Your task to perform on an android device: Go to eBay Image 0: 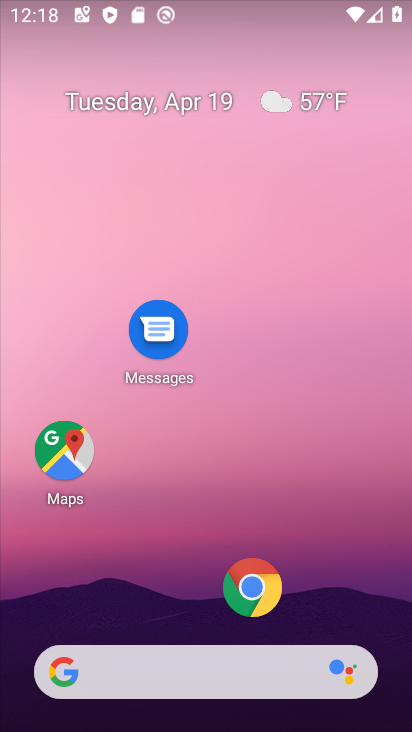
Step 0: drag from (188, 527) to (177, 81)
Your task to perform on an android device: Go to eBay Image 1: 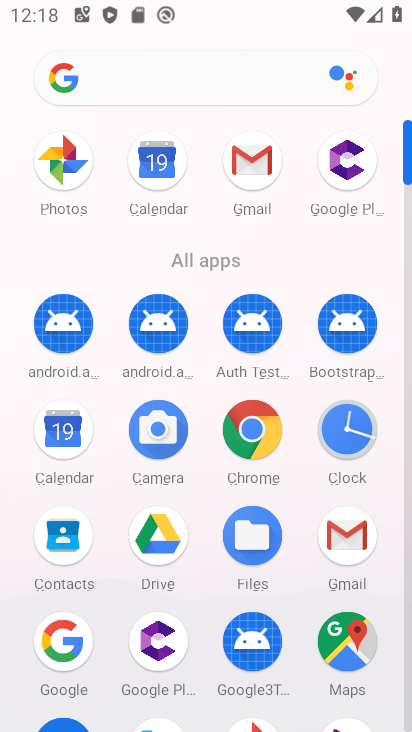
Step 1: click (71, 640)
Your task to perform on an android device: Go to eBay Image 2: 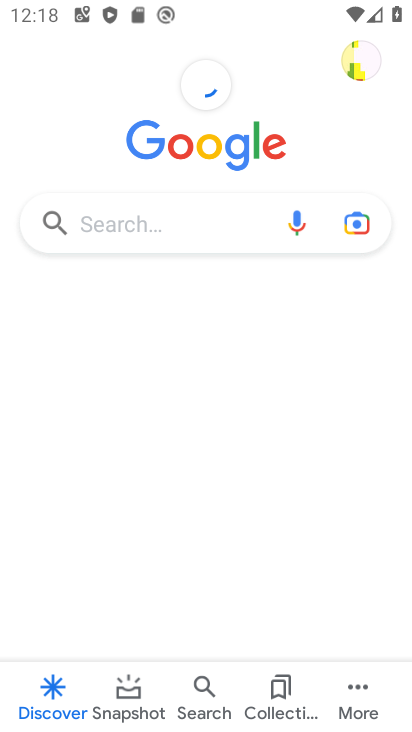
Step 2: click (163, 228)
Your task to perform on an android device: Go to eBay Image 3: 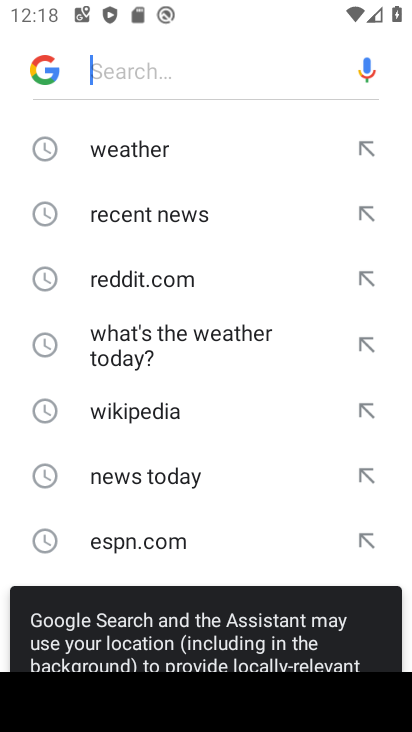
Step 3: drag from (222, 495) to (233, 41)
Your task to perform on an android device: Go to eBay Image 4: 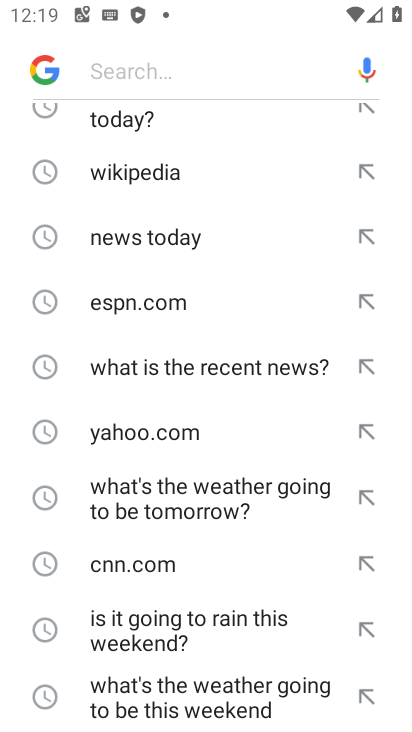
Step 4: type "ebay"
Your task to perform on an android device: Go to eBay Image 5: 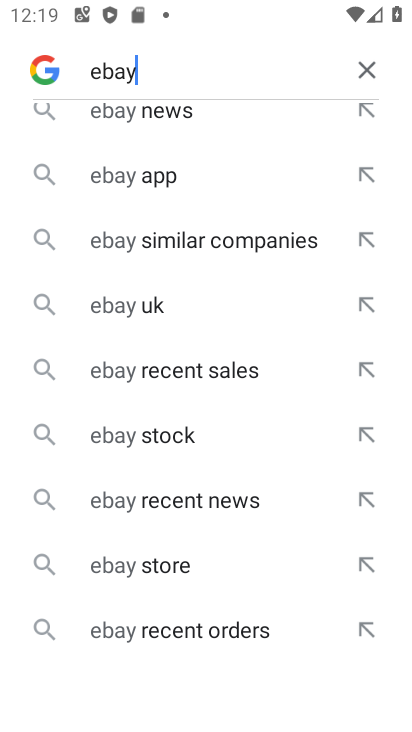
Step 5: click (162, 172)
Your task to perform on an android device: Go to eBay Image 6: 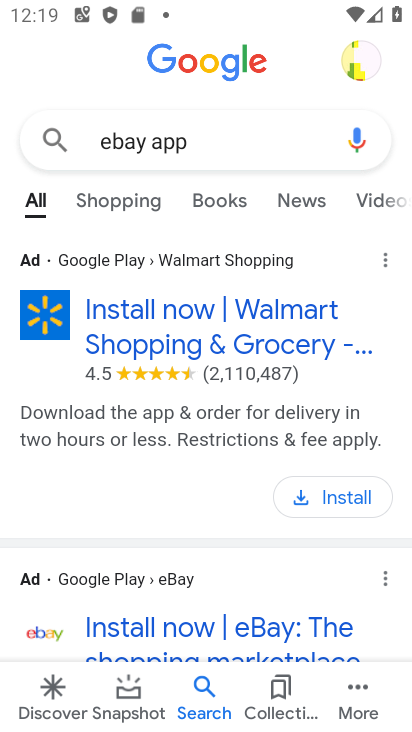
Step 6: task complete